Your task to perform on an android device: turn on wifi Image 0: 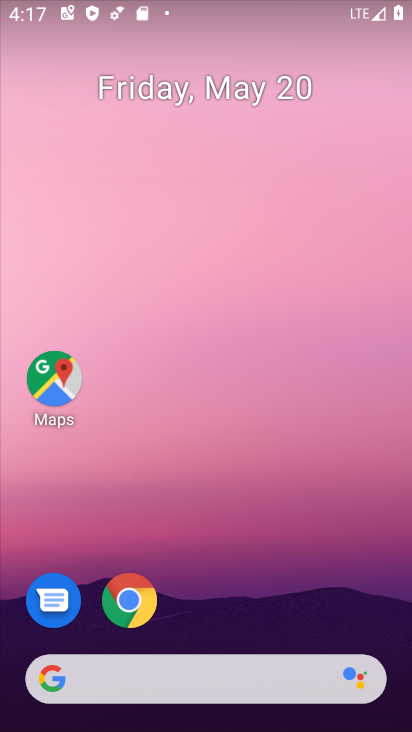
Step 0: click (216, 51)
Your task to perform on an android device: turn on wifi Image 1: 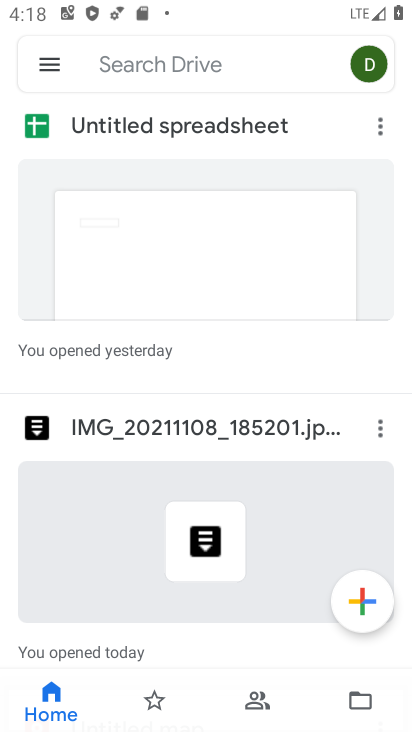
Step 1: press back button
Your task to perform on an android device: turn on wifi Image 2: 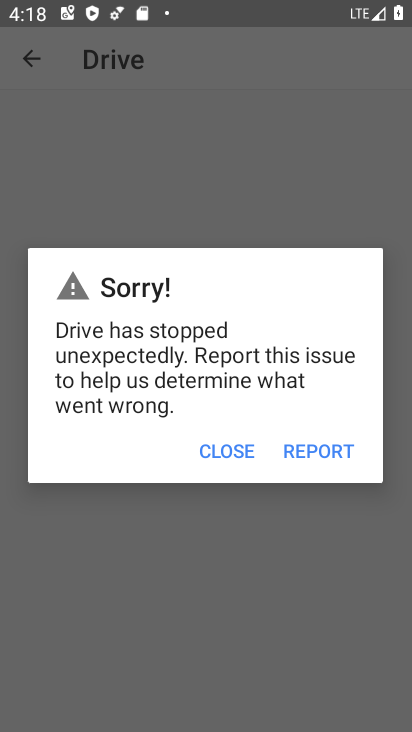
Step 2: press home button
Your task to perform on an android device: turn on wifi Image 3: 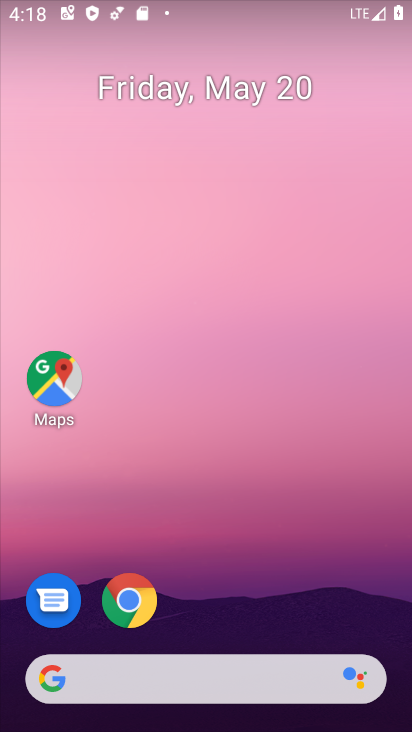
Step 3: drag from (277, 572) to (212, 92)
Your task to perform on an android device: turn on wifi Image 4: 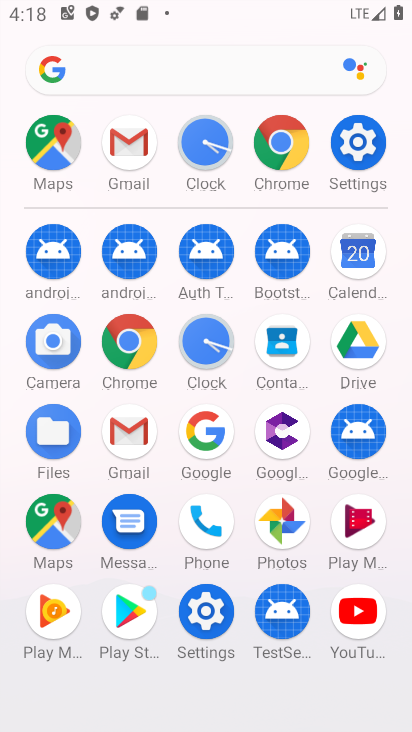
Step 4: click (205, 610)
Your task to perform on an android device: turn on wifi Image 5: 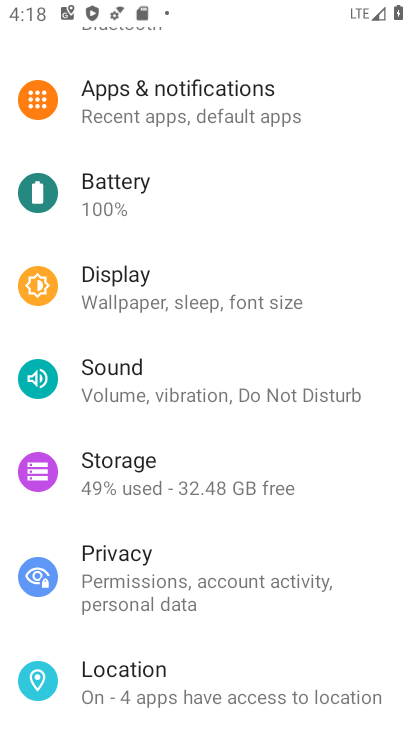
Step 5: drag from (212, 187) to (197, 639)
Your task to perform on an android device: turn on wifi Image 6: 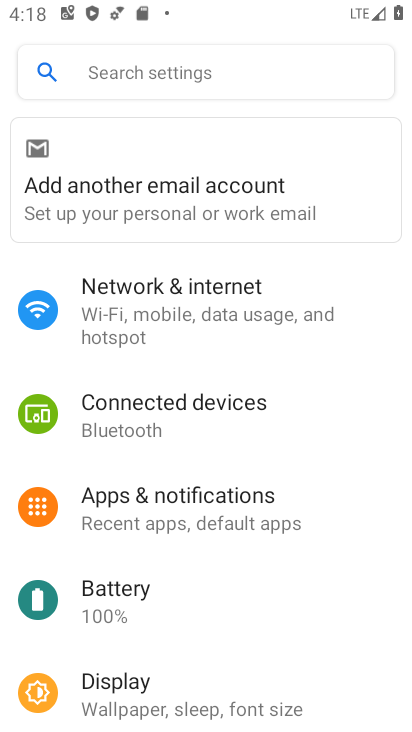
Step 6: click (172, 292)
Your task to perform on an android device: turn on wifi Image 7: 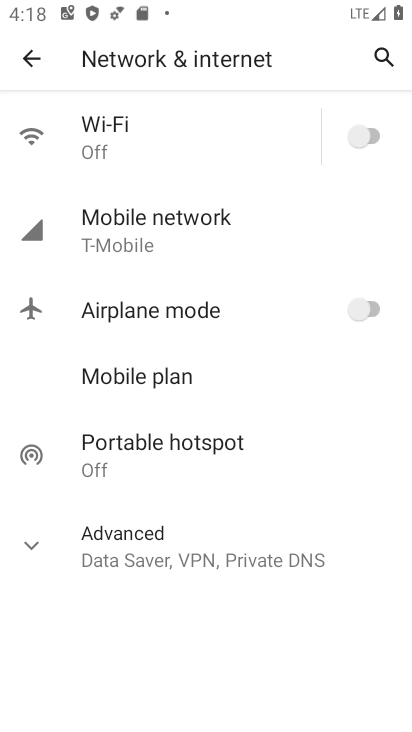
Step 7: click (362, 134)
Your task to perform on an android device: turn on wifi Image 8: 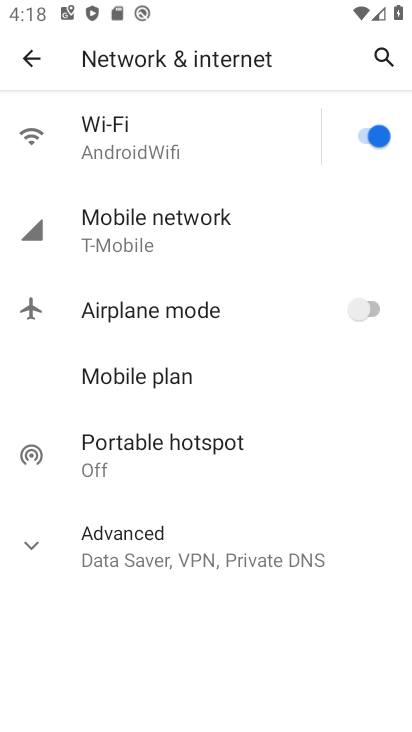
Step 8: task complete